Your task to perform on an android device: delete browsing data in the chrome app Image 0: 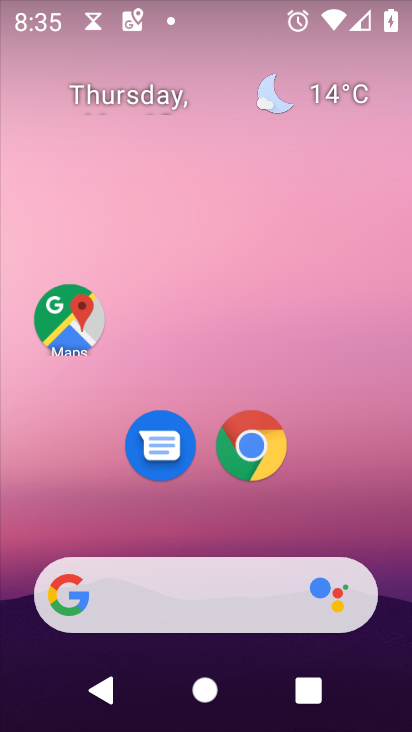
Step 0: click (253, 442)
Your task to perform on an android device: delete browsing data in the chrome app Image 1: 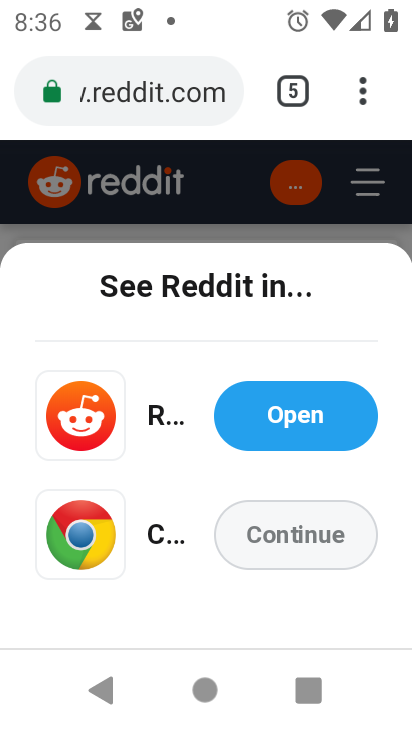
Step 1: click (365, 96)
Your task to perform on an android device: delete browsing data in the chrome app Image 2: 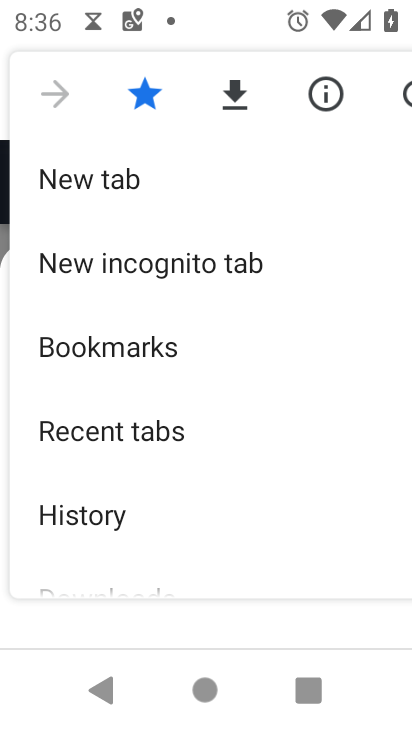
Step 2: click (81, 513)
Your task to perform on an android device: delete browsing data in the chrome app Image 3: 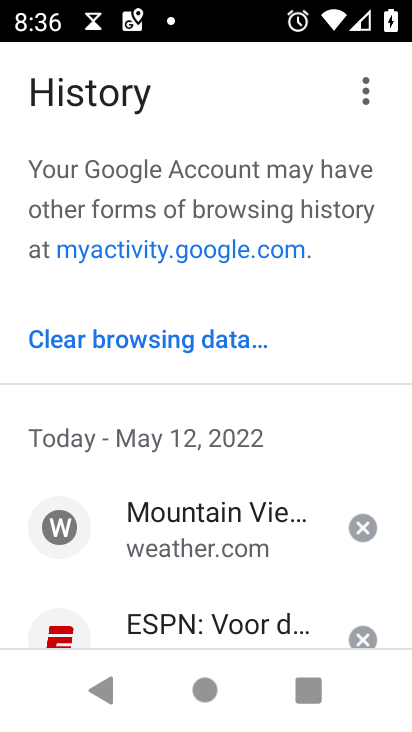
Step 3: click (144, 340)
Your task to perform on an android device: delete browsing data in the chrome app Image 4: 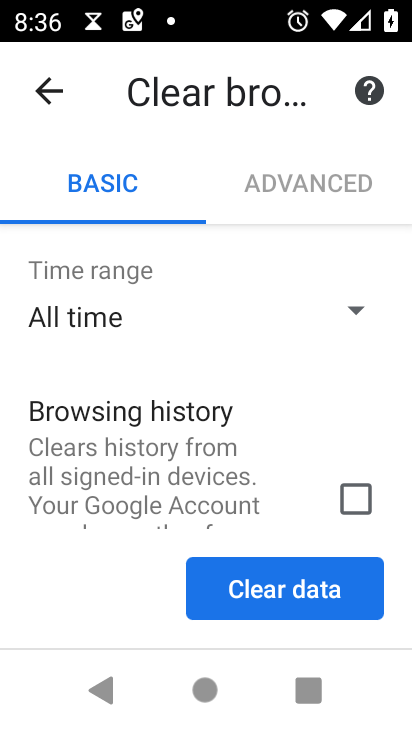
Step 4: drag from (201, 486) to (201, 376)
Your task to perform on an android device: delete browsing data in the chrome app Image 5: 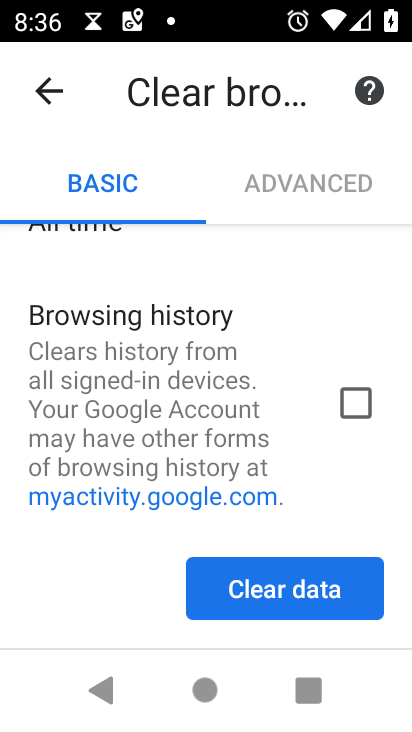
Step 5: click (347, 400)
Your task to perform on an android device: delete browsing data in the chrome app Image 6: 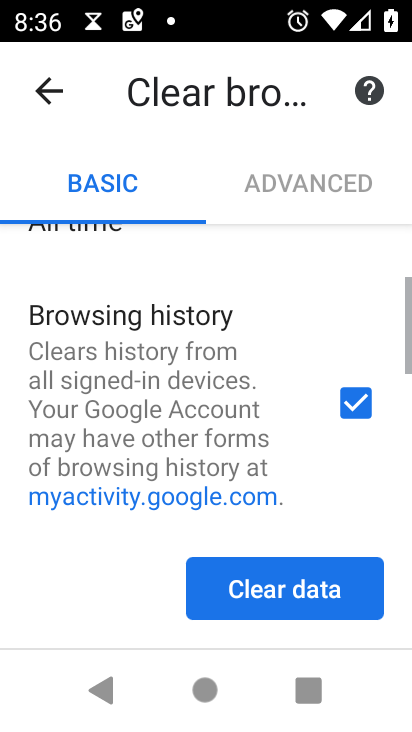
Step 6: drag from (273, 463) to (273, 203)
Your task to perform on an android device: delete browsing data in the chrome app Image 7: 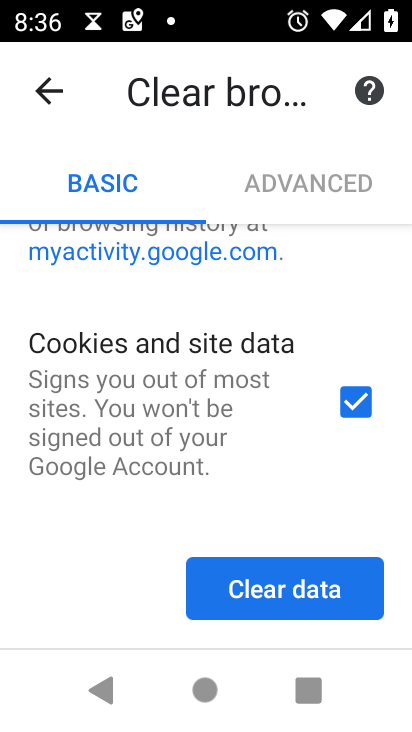
Step 7: click (357, 401)
Your task to perform on an android device: delete browsing data in the chrome app Image 8: 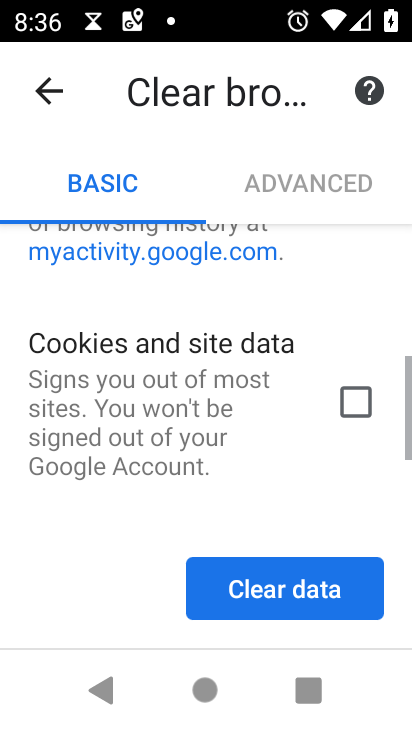
Step 8: drag from (271, 489) to (273, 276)
Your task to perform on an android device: delete browsing data in the chrome app Image 9: 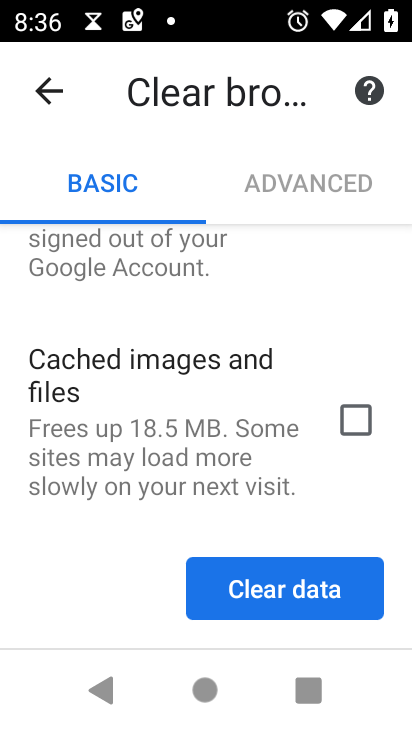
Step 9: drag from (271, 254) to (254, 466)
Your task to perform on an android device: delete browsing data in the chrome app Image 10: 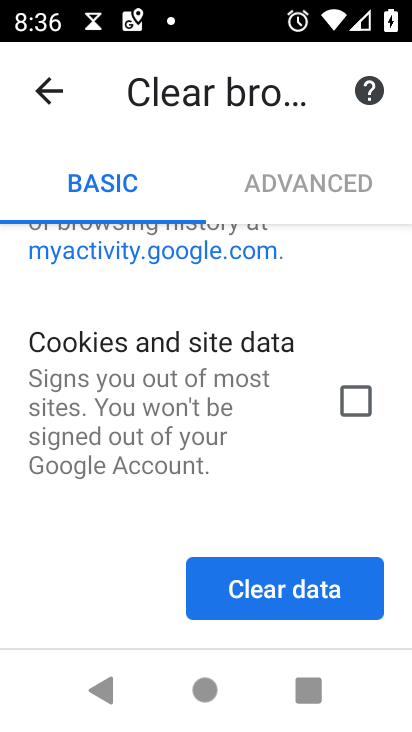
Step 10: drag from (255, 244) to (257, 487)
Your task to perform on an android device: delete browsing data in the chrome app Image 11: 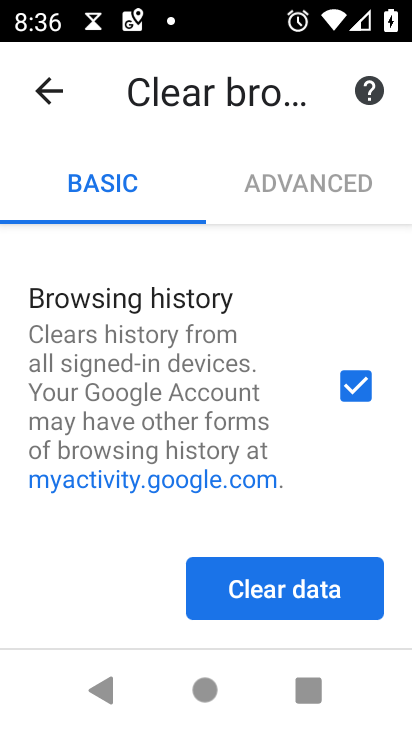
Step 11: click (283, 296)
Your task to perform on an android device: delete browsing data in the chrome app Image 12: 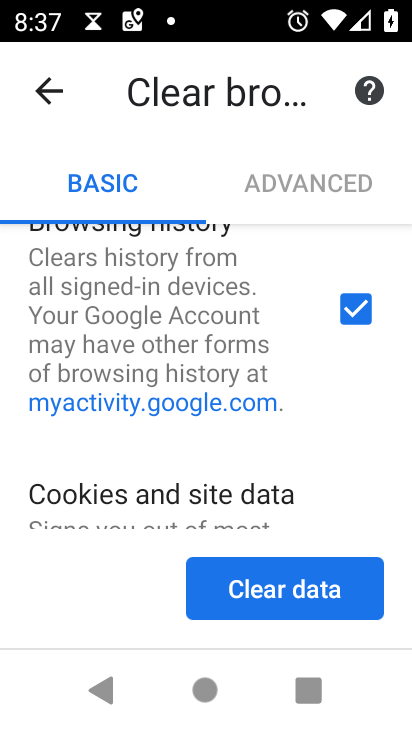
Step 12: drag from (329, 500) to (344, 189)
Your task to perform on an android device: delete browsing data in the chrome app Image 13: 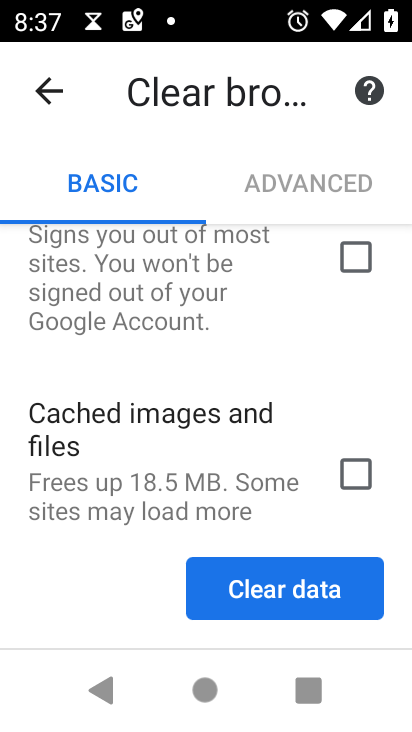
Step 13: click (300, 588)
Your task to perform on an android device: delete browsing data in the chrome app Image 14: 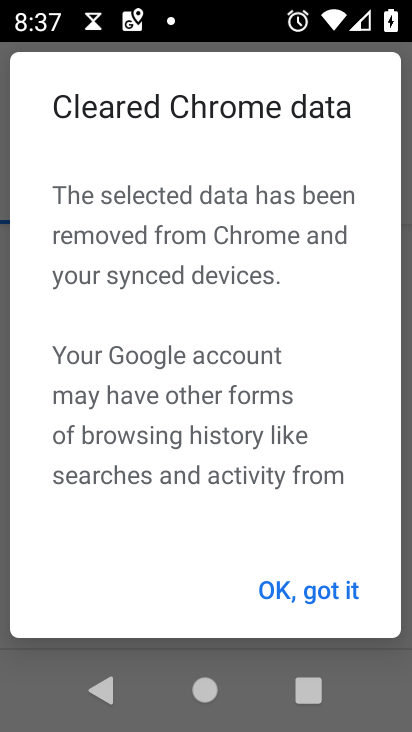
Step 14: click (290, 585)
Your task to perform on an android device: delete browsing data in the chrome app Image 15: 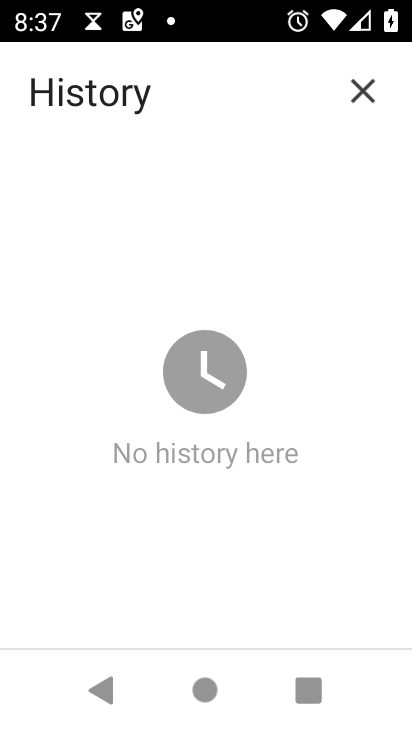
Step 15: task complete